Your task to perform on an android device: Go to Yahoo.com Image 0: 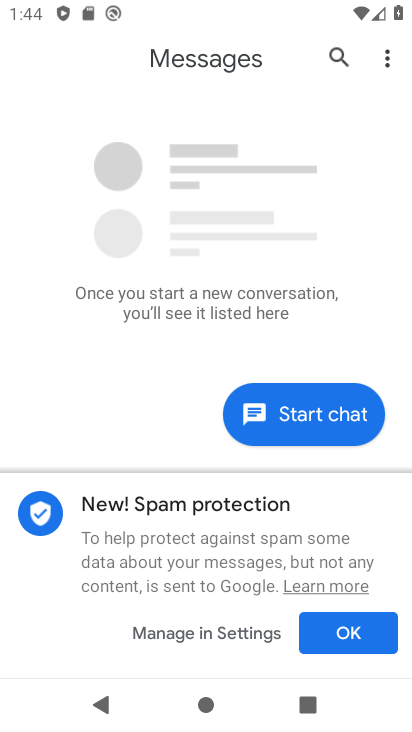
Step 0: press back button
Your task to perform on an android device: Go to Yahoo.com Image 1: 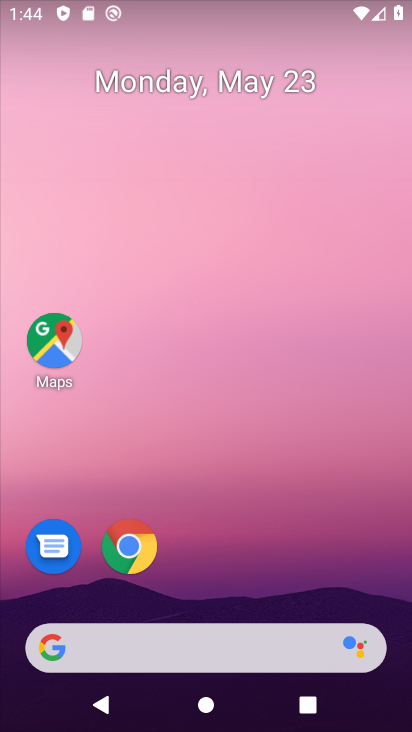
Step 1: click (111, 555)
Your task to perform on an android device: Go to Yahoo.com Image 2: 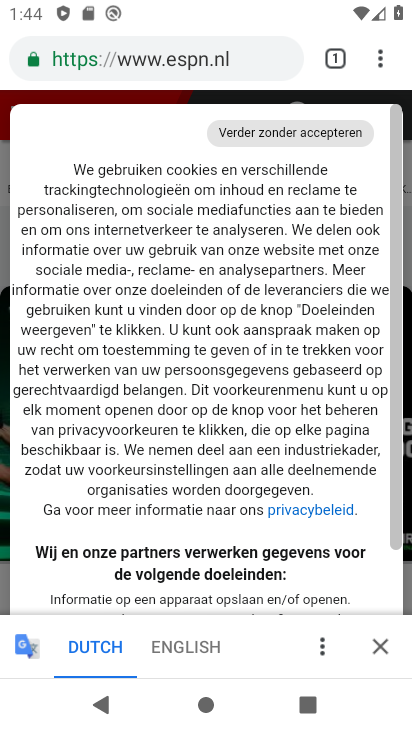
Step 2: click (344, 61)
Your task to perform on an android device: Go to Yahoo.com Image 3: 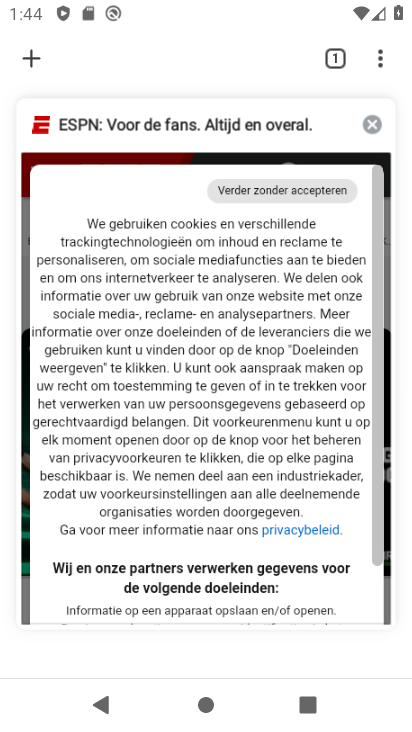
Step 3: click (34, 53)
Your task to perform on an android device: Go to Yahoo.com Image 4: 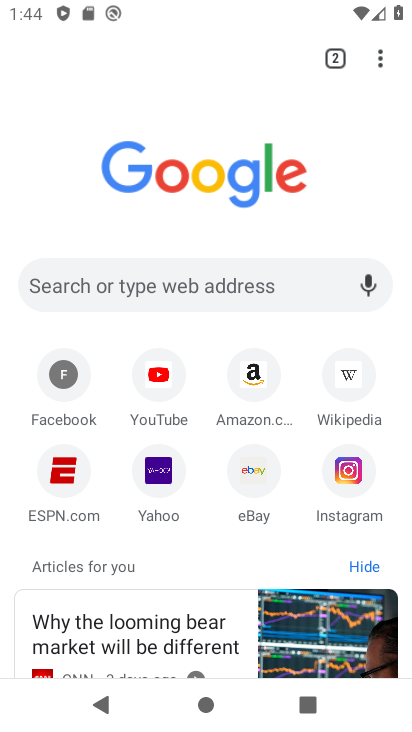
Step 4: click (146, 488)
Your task to perform on an android device: Go to Yahoo.com Image 5: 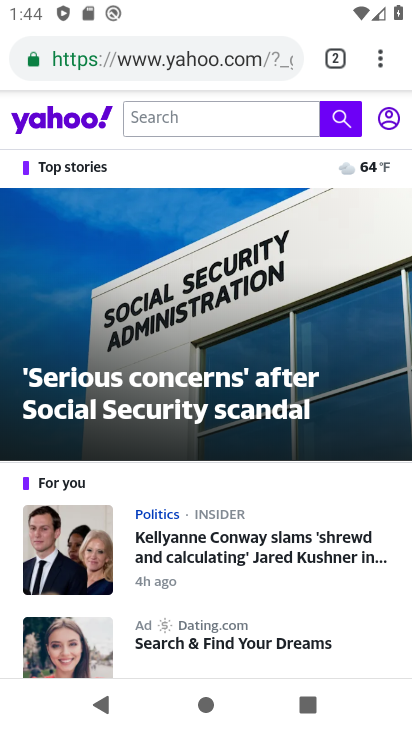
Step 5: task complete